Your task to perform on an android device: empty trash in the gmail app Image 0: 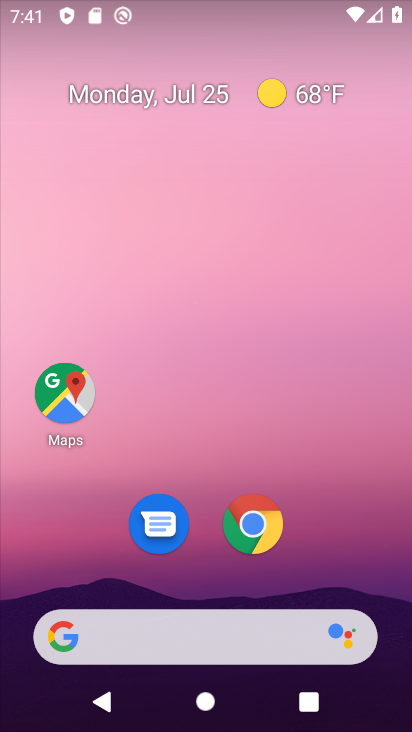
Step 0: drag from (313, 533) to (318, 26)
Your task to perform on an android device: empty trash in the gmail app Image 1: 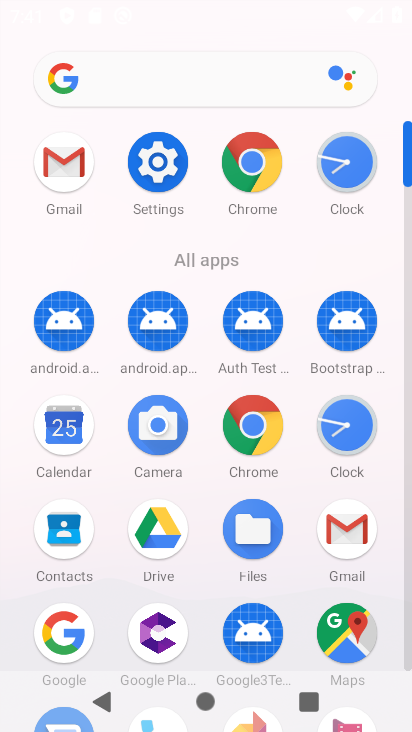
Step 1: click (72, 170)
Your task to perform on an android device: empty trash in the gmail app Image 2: 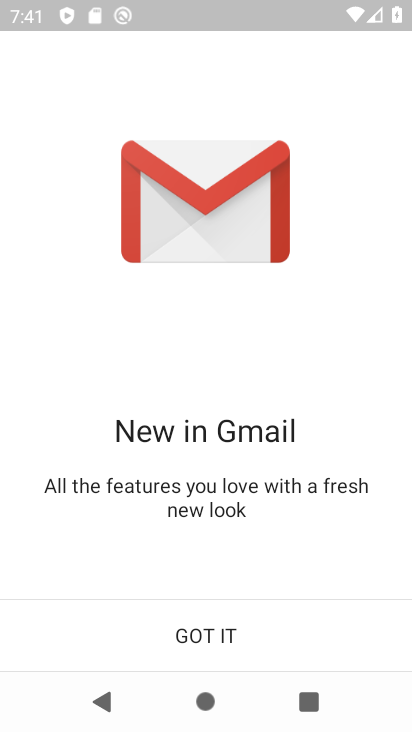
Step 2: click (231, 638)
Your task to perform on an android device: empty trash in the gmail app Image 3: 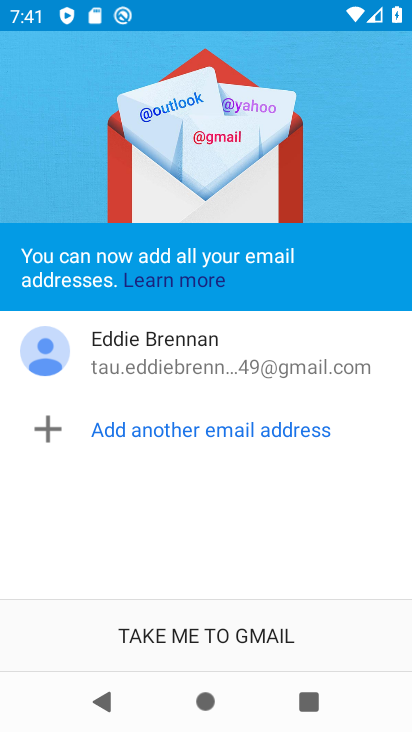
Step 3: click (231, 635)
Your task to perform on an android device: empty trash in the gmail app Image 4: 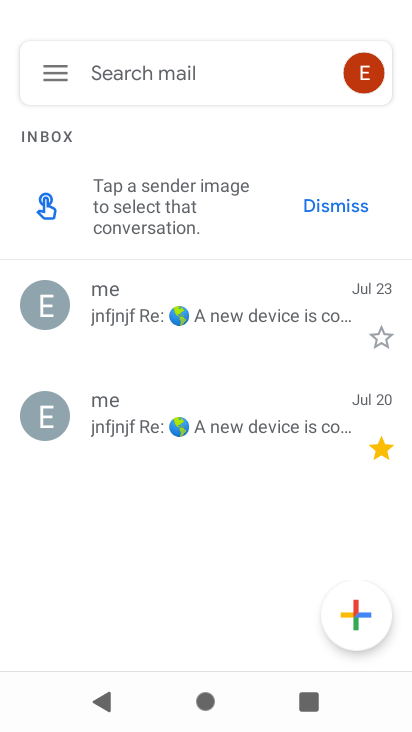
Step 4: click (56, 69)
Your task to perform on an android device: empty trash in the gmail app Image 5: 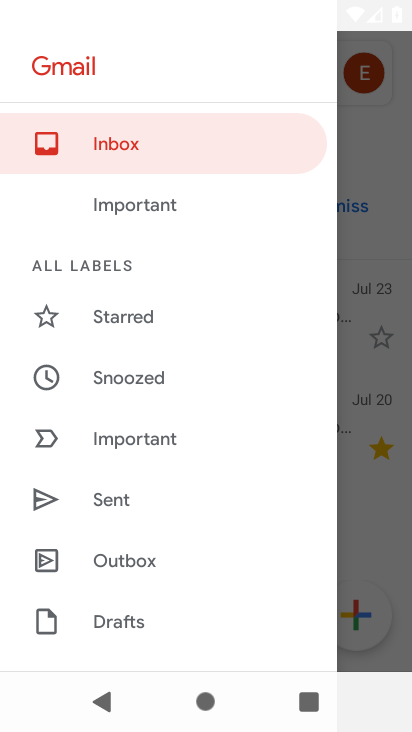
Step 5: drag from (159, 573) to (238, 72)
Your task to perform on an android device: empty trash in the gmail app Image 6: 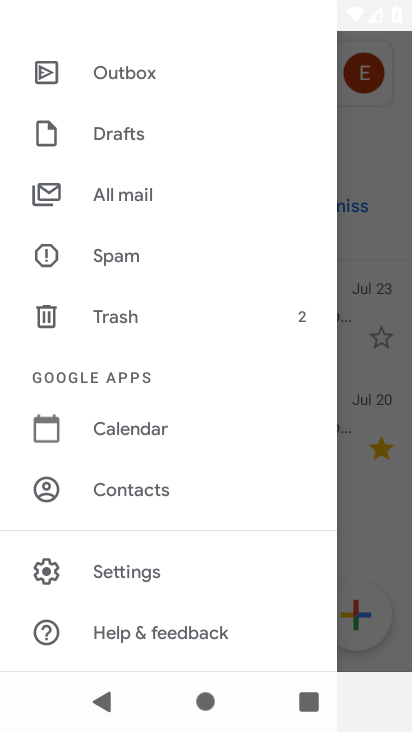
Step 6: click (143, 320)
Your task to perform on an android device: empty trash in the gmail app Image 7: 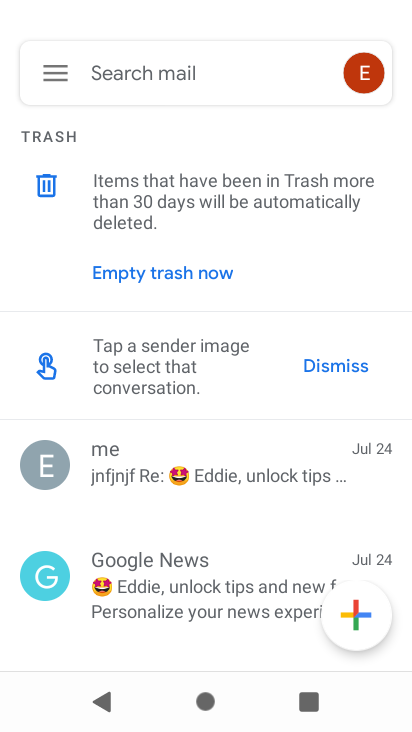
Step 7: click (169, 271)
Your task to perform on an android device: empty trash in the gmail app Image 8: 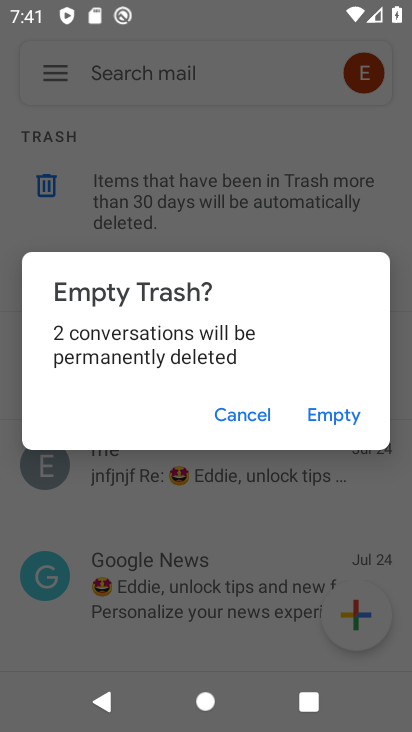
Step 8: click (344, 404)
Your task to perform on an android device: empty trash in the gmail app Image 9: 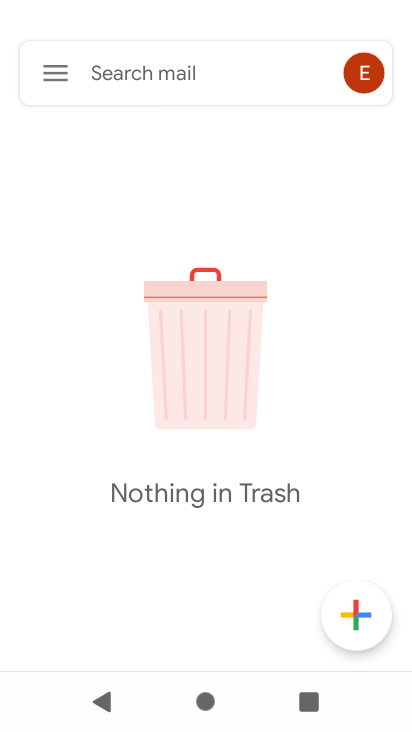
Step 9: task complete